Your task to perform on an android device: Turn on the flashlight Image 0: 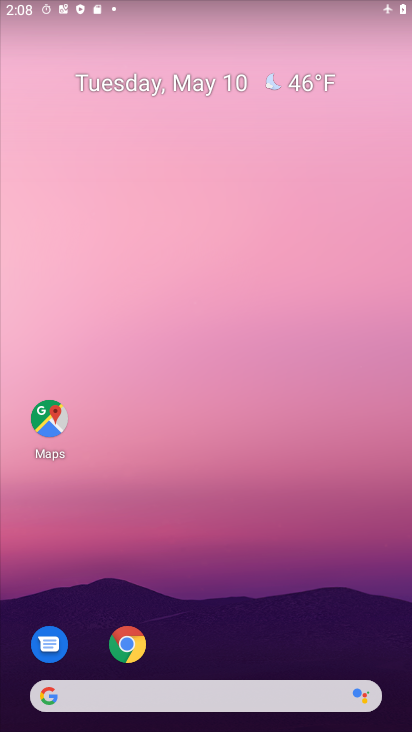
Step 0: drag from (251, 639) to (279, 258)
Your task to perform on an android device: Turn on the flashlight Image 1: 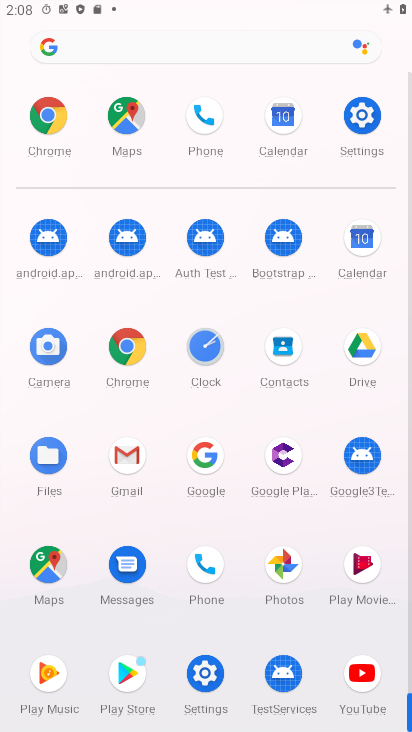
Step 1: click (354, 142)
Your task to perform on an android device: Turn on the flashlight Image 2: 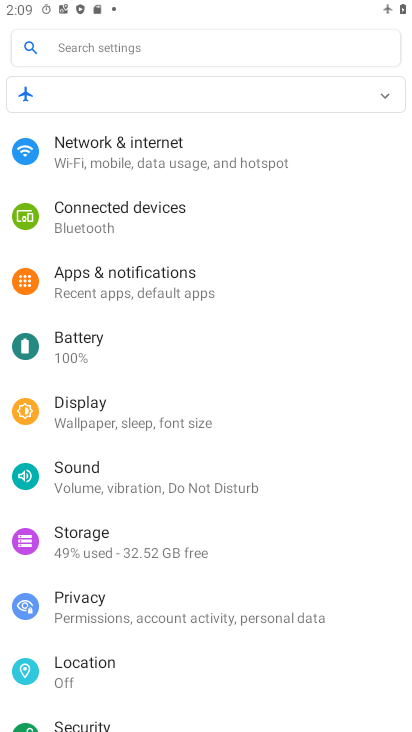
Step 2: task complete